Your task to perform on an android device: Open Google Chrome Image 0: 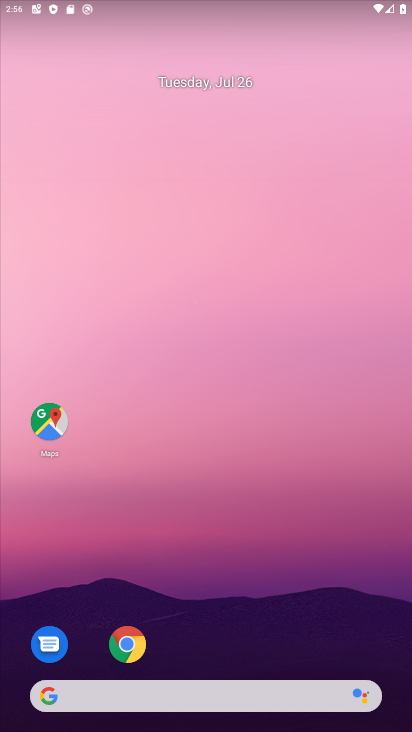
Step 0: click (116, 652)
Your task to perform on an android device: Open Google Chrome Image 1: 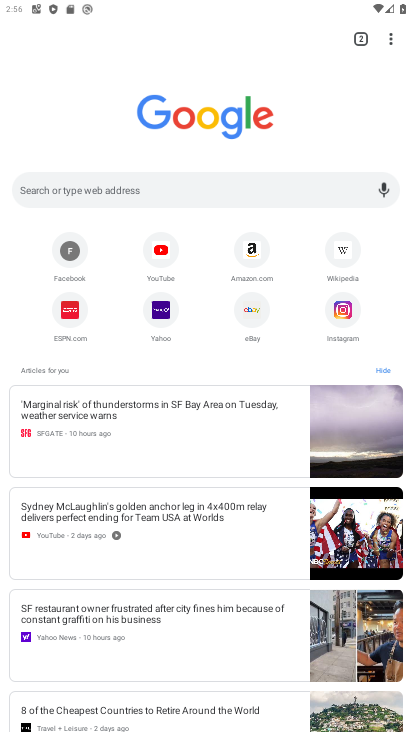
Step 1: task complete